Your task to perform on an android device: What's the weather? Image 0: 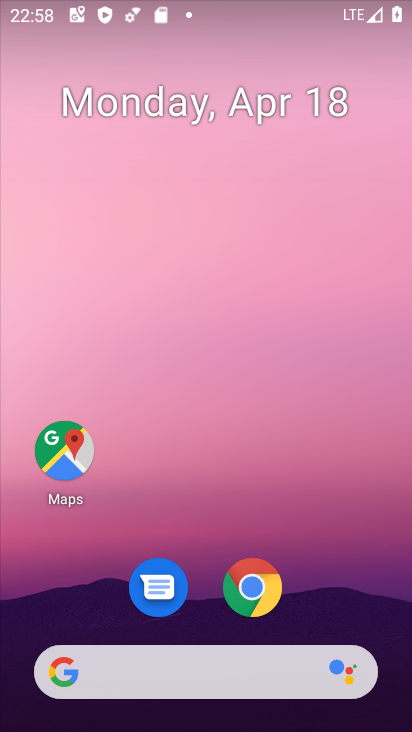
Step 0: drag from (369, 437) to (325, 140)
Your task to perform on an android device: What's the weather? Image 1: 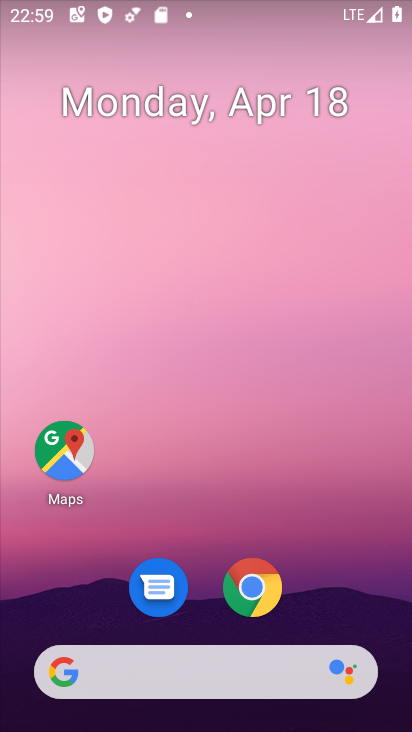
Step 1: click (267, 574)
Your task to perform on an android device: What's the weather? Image 2: 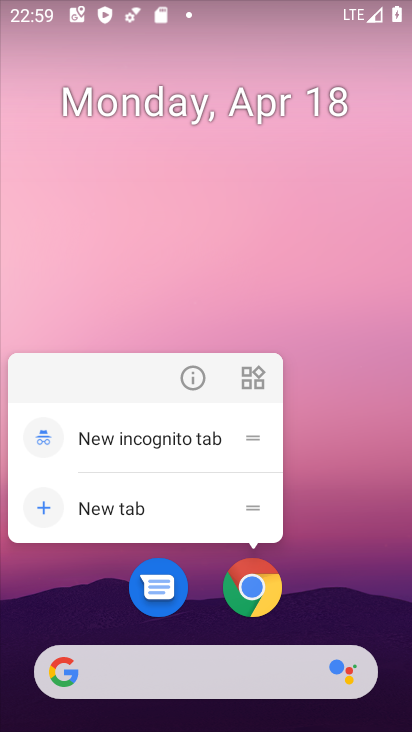
Step 2: click (251, 613)
Your task to perform on an android device: What's the weather? Image 3: 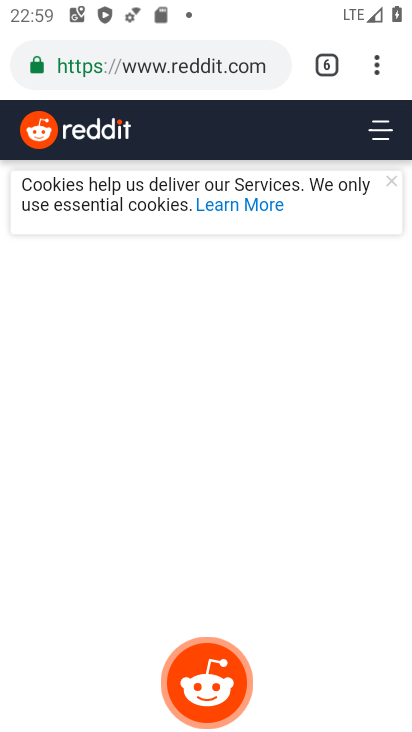
Step 3: click (326, 64)
Your task to perform on an android device: What's the weather? Image 4: 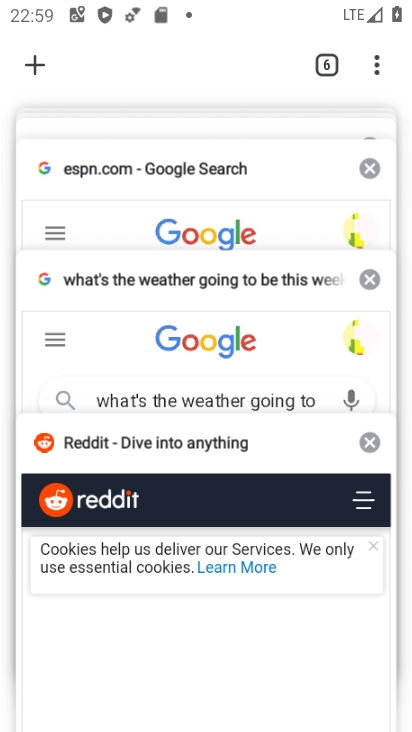
Step 4: click (29, 68)
Your task to perform on an android device: What's the weather? Image 5: 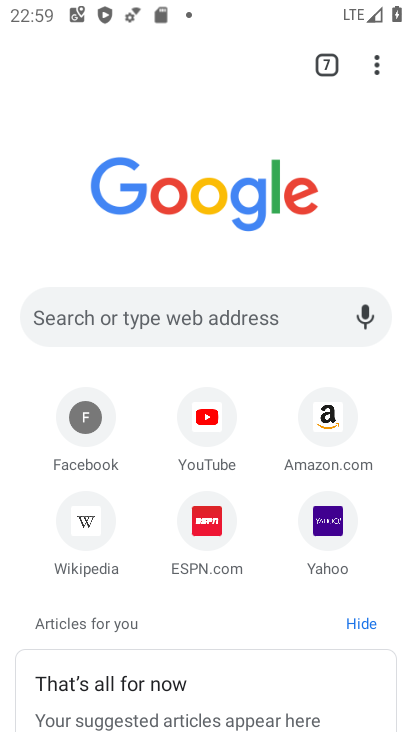
Step 5: click (172, 326)
Your task to perform on an android device: What's the weather? Image 6: 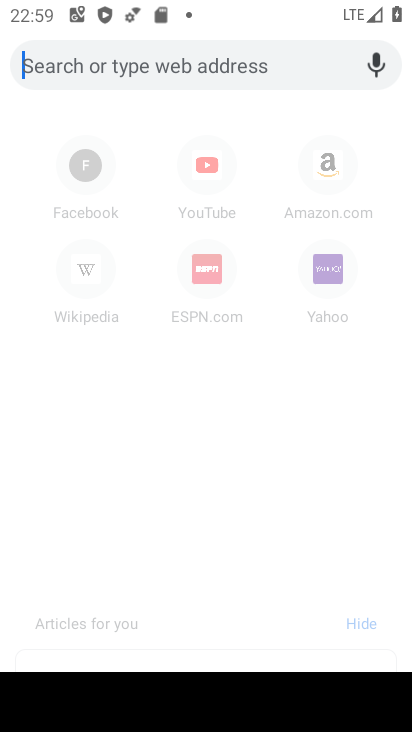
Step 6: type "what's the weather"
Your task to perform on an android device: What's the weather? Image 7: 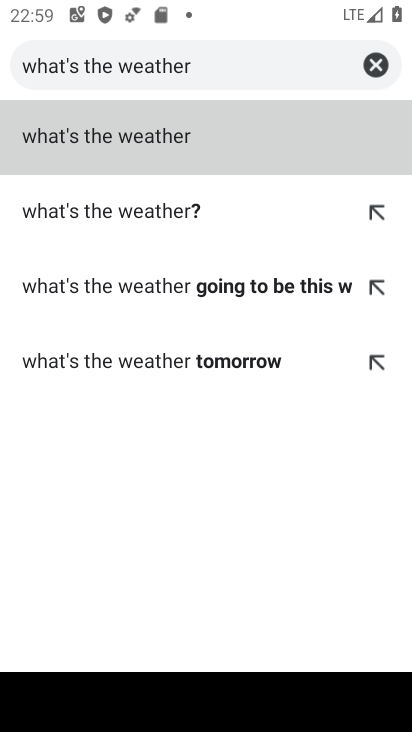
Step 7: click (71, 140)
Your task to perform on an android device: What's the weather? Image 8: 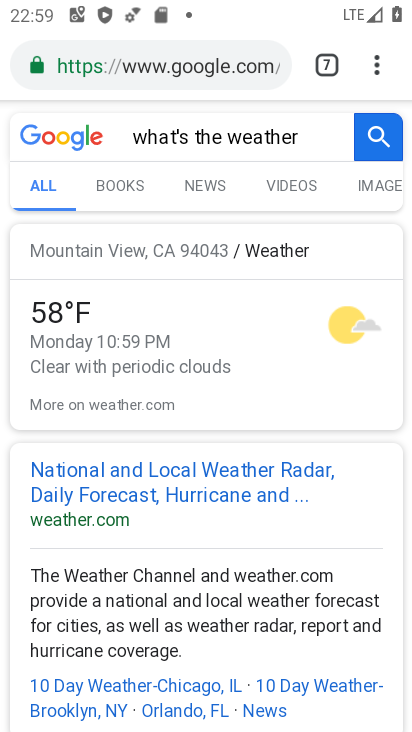
Step 8: task complete